Your task to perform on an android device: delete the emails in spam in the gmail app Image 0: 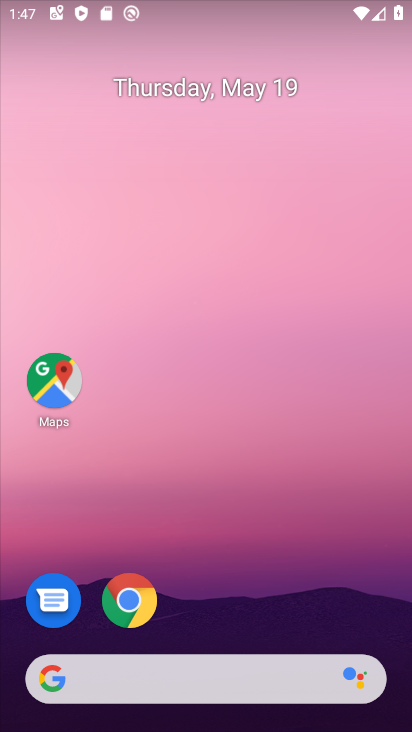
Step 0: drag from (27, 559) to (249, 126)
Your task to perform on an android device: delete the emails in spam in the gmail app Image 1: 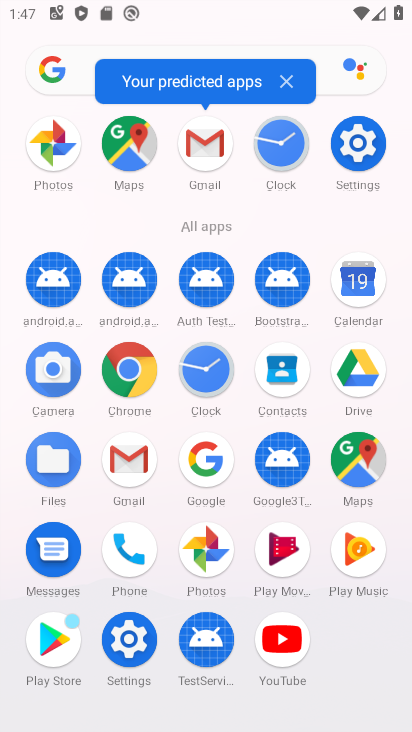
Step 1: click (207, 139)
Your task to perform on an android device: delete the emails in spam in the gmail app Image 2: 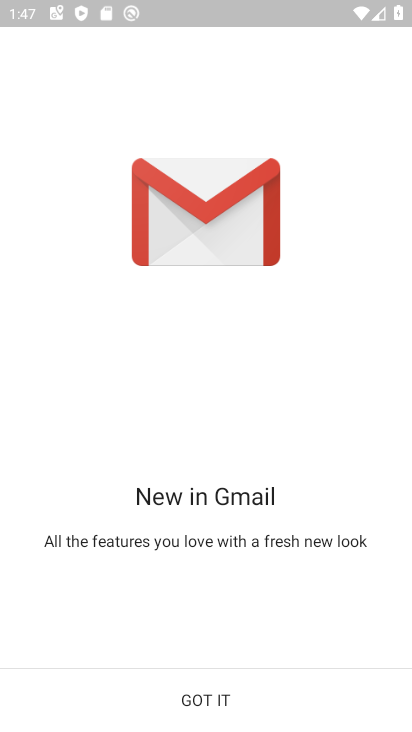
Step 2: click (160, 698)
Your task to perform on an android device: delete the emails in spam in the gmail app Image 3: 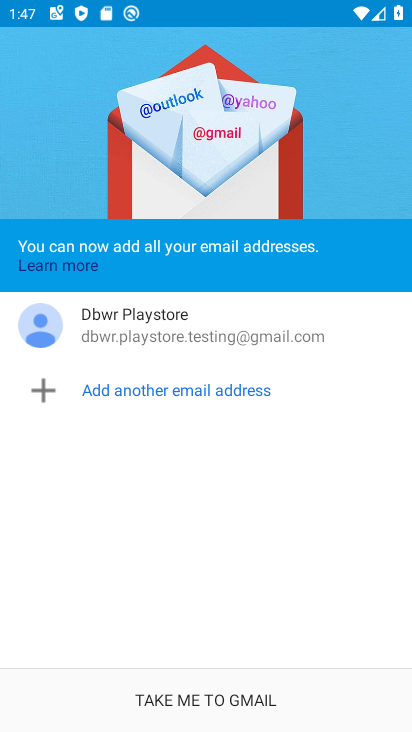
Step 3: click (203, 713)
Your task to perform on an android device: delete the emails in spam in the gmail app Image 4: 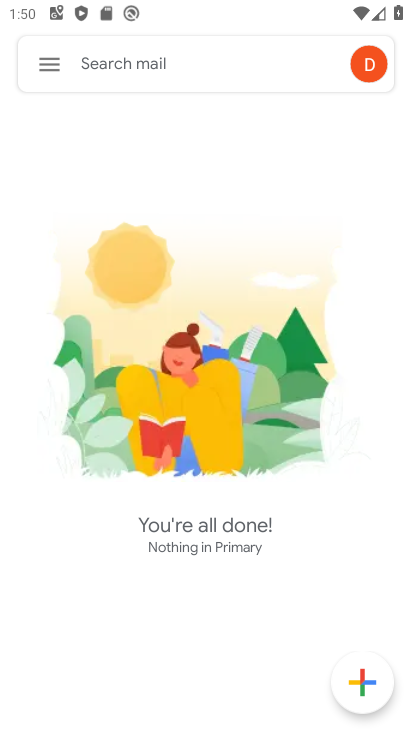
Step 4: press home button
Your task to perform on an android device: delete the emails in spam in the gmail app Image 5: 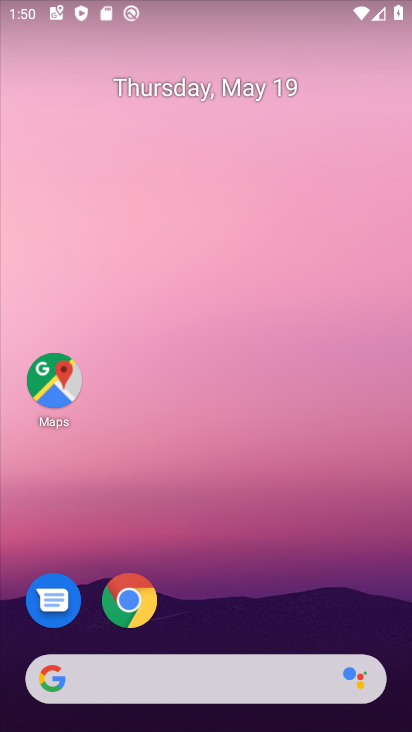
Step 5: drag from (42, 535) to (208, 175)
Your task to perform on an android device: delete the emails in spam in the gmail app Image 6: 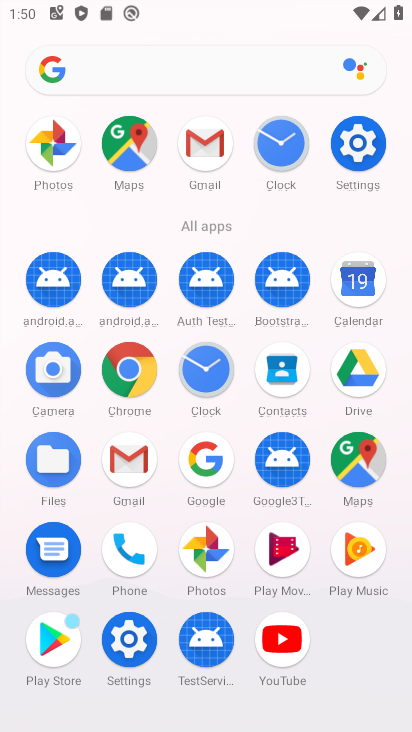
Step 6: click (129, 465)
Your task to perform on an android device: delete the emails in spam in the gmail app Image 7: 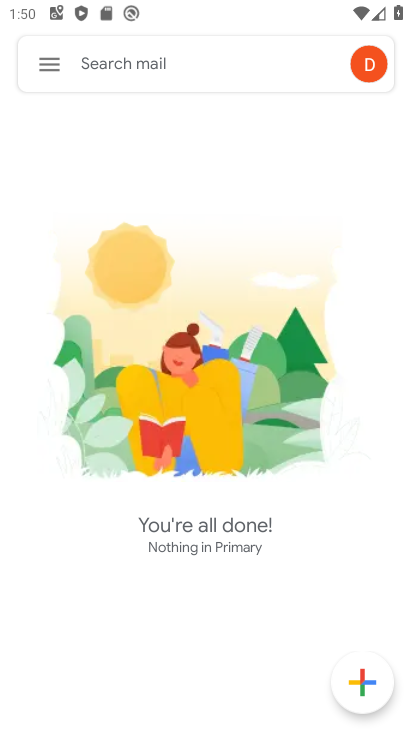
Step 7: click (49, 56)
Your task to perform on an android device: delete the emails in spam in the gmail app Image 8: 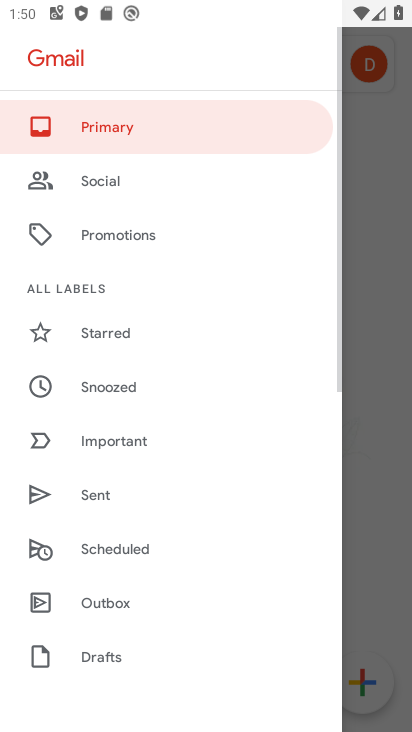
Step 8: drag from (9, 583) to (178, 145)
Your task to perform on an android device: delete the emails in spam in the gmail app Image 9: 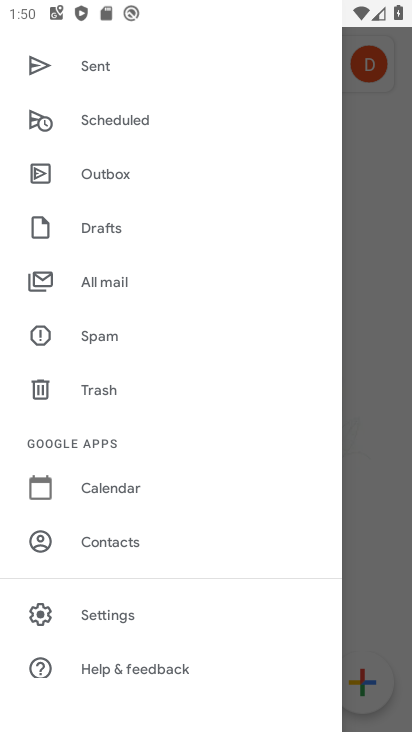
Step 9: click (89, 323)
Your task to perform on an android device: delete the emails in spam in the gmail app Image 10: 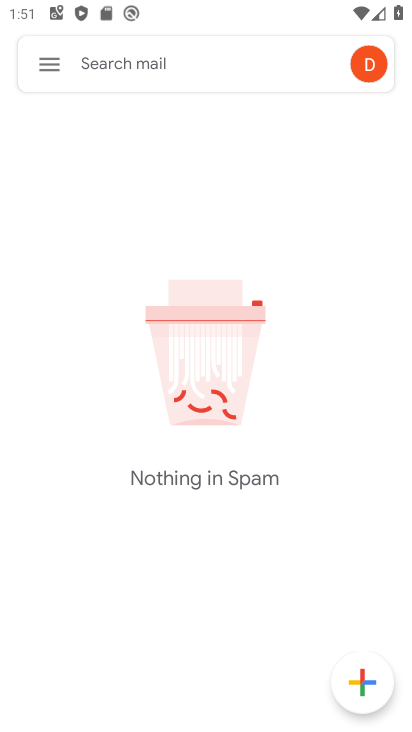
Step 10: task complete